Your task to perform on an android device: turn off location Image 0: 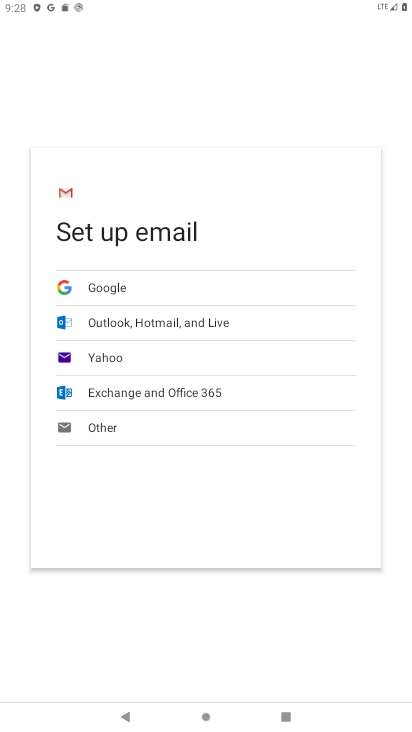
Step 0: click (410, 246)
Your task to perform on an android device: turn off location Image 1: 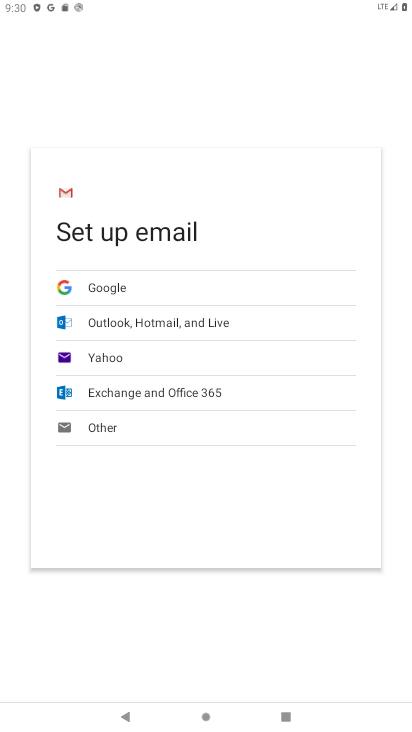
Step 1: press home button
Your task to perform on an android device: turn off location Image 2: 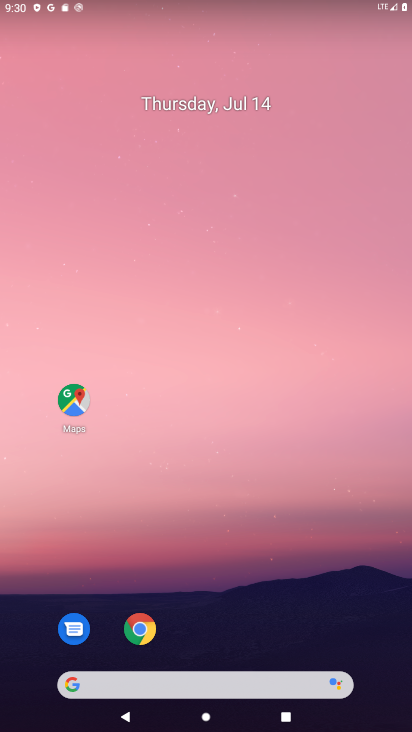
Step 2: drag from (43, 638) to (349, 109)
Your task to perform on an android device: turn off location Image 3: 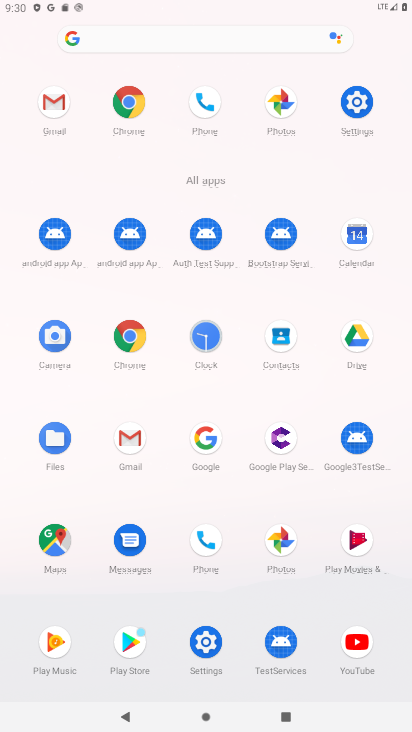
Step 3: click (349, 108)
Your task to perform on an android device: turn off location Image 4: 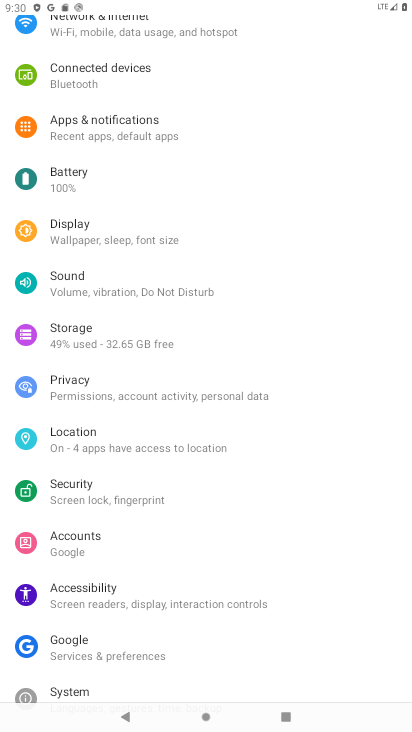
Step 4: click (159, 449)
Your task to perform on an android device: turn off location Image 5: 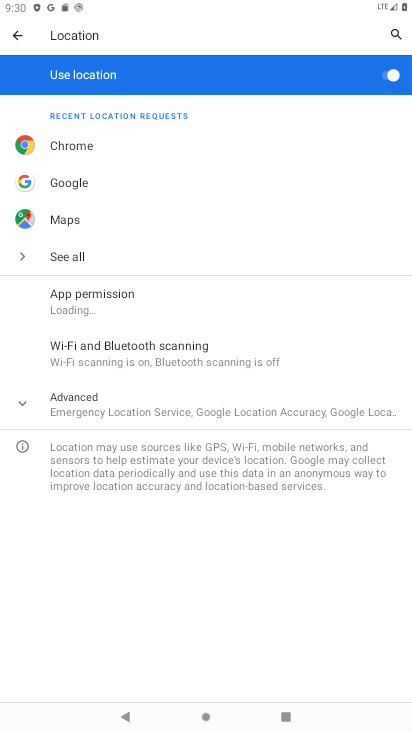
Step 5: click (396, 82)
Your task to perform on an android device: turn off location Image 6: 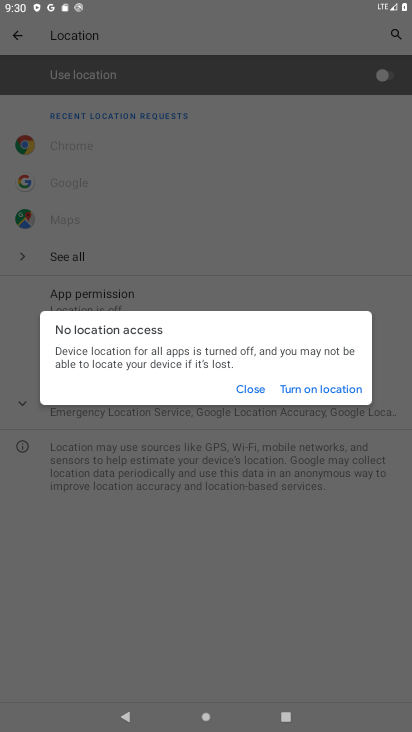
Step 6: task complete